Your task to perform on an android device: Go to location settings Image 0: 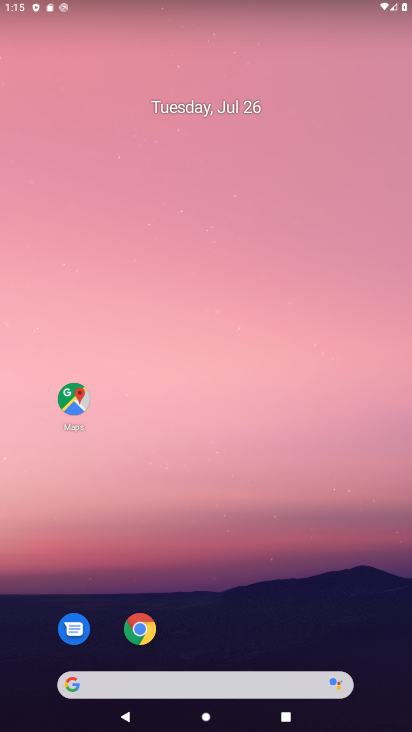
Step 0: drag from (202, 567) to (302, 4)
Your task to perform on an android device: Go to location settings Image 1: 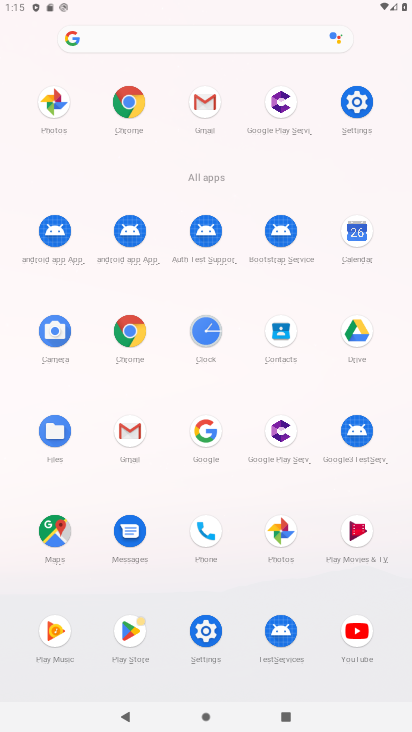
Step 1: click (211, 631)
Your task to perform on an android device: Go to location settings Image 2: 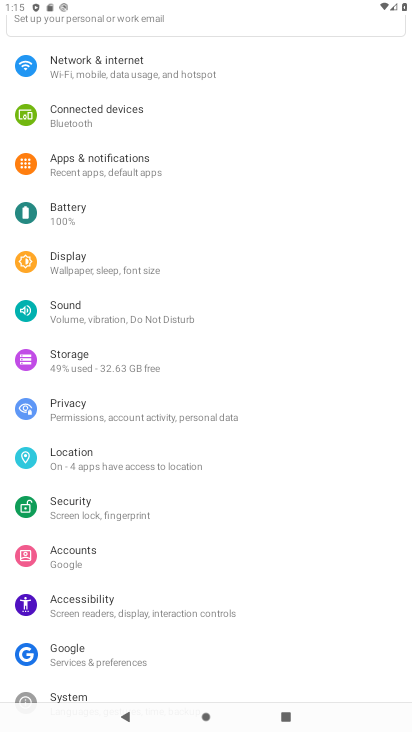
Step 2: click (116, 445)
Your task to perform on an android device: Go to location settings Image 3: 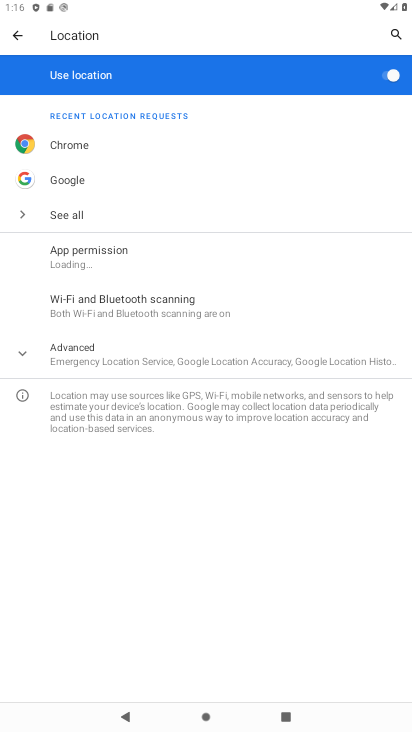
Step 3: task complete